Your task to perform on an android device: toggle pop-ups in chrome Image 0: 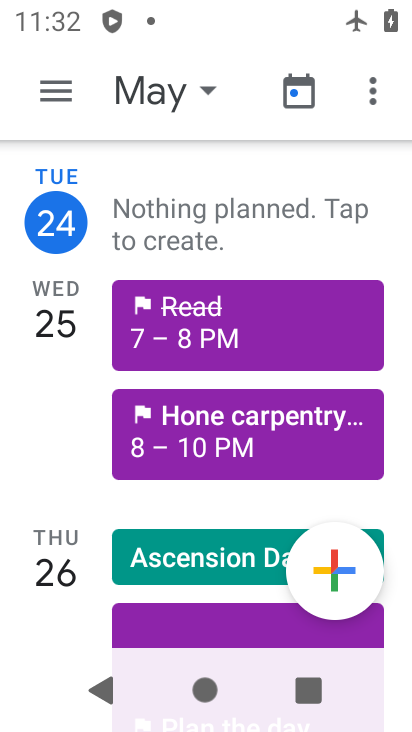
Step 0: press back button
Your task to perform on an android device: toggle pop-ups in chrome Image 1: 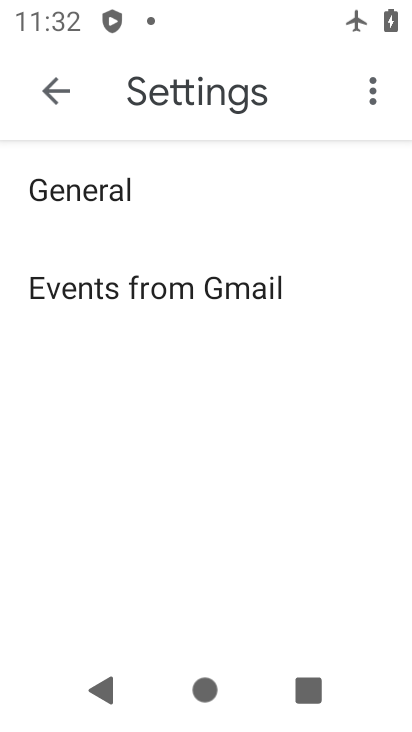
Step 1: press home button
Your task to perform on an android device: toggle pop-ups in chrome Image 2: 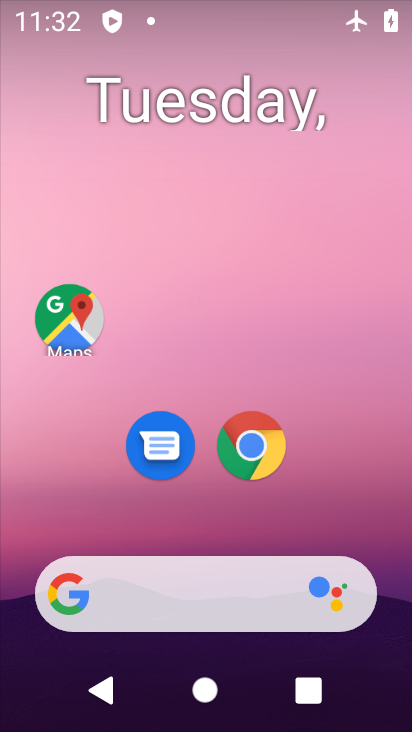
Step 2: drag from (350, 533) to (254, 12)
Your task to perform on an android device: toggle pop-ups in chrome Image 3: 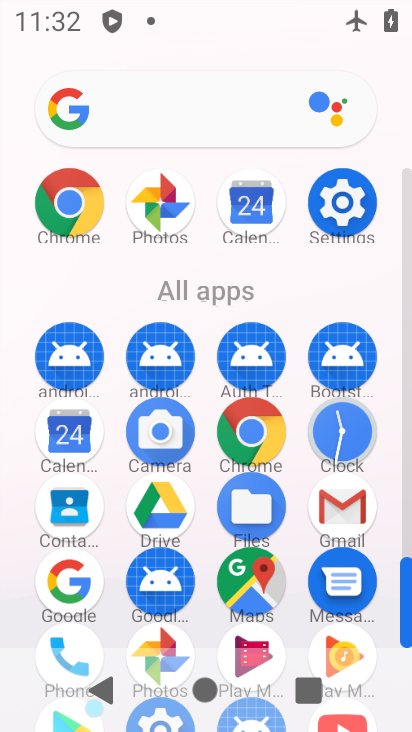
Step 3: drag from (5, 580) to (24, 222)
Your task to perform on an android device: toggle pop-ups in chrome Image 4: 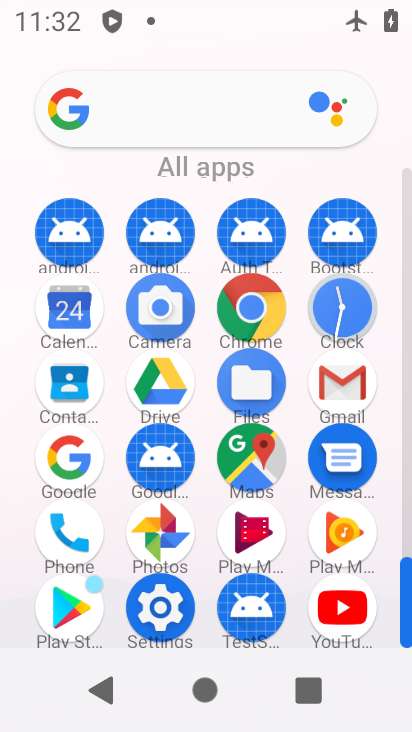
Step 4: click (244, 306)
Your task to perform on an android device: toggle pop-ups in chrome Image 5: 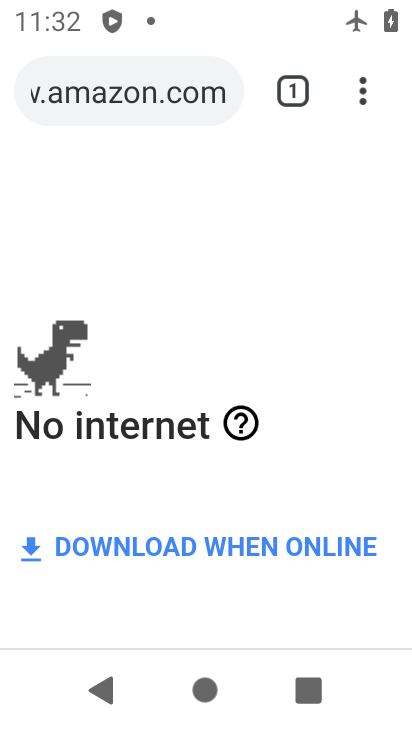
Step 5: drag from (357, 91) to (119, 459)
Your task to perform on an android device: toggle pop-ups in chrome Image 6: 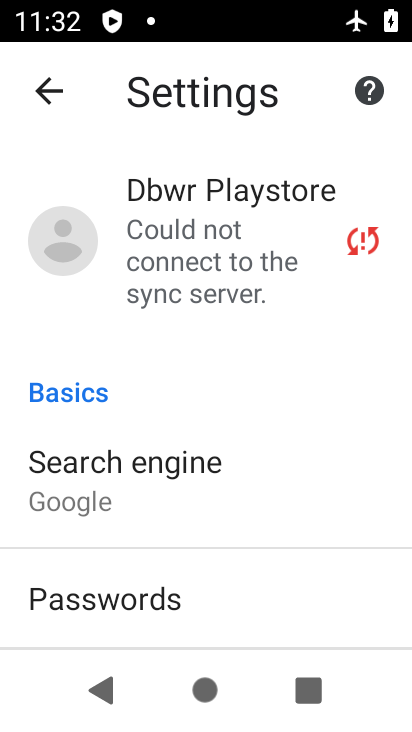
Step 6: drag from (307, 490) to (277, 177)
Your task to perform on an android device: toggle pop-ups in chrome Image 7: 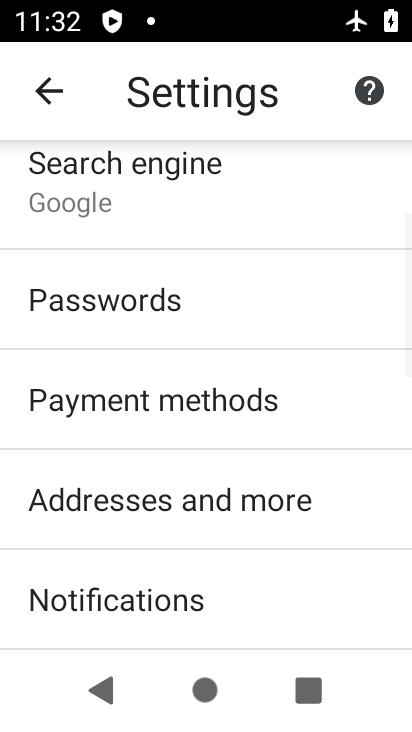
Step 7: drag from (223, 597) to (210, 151)
Your task to perform on an android device: toggle pop-ups in chrome Image 8: 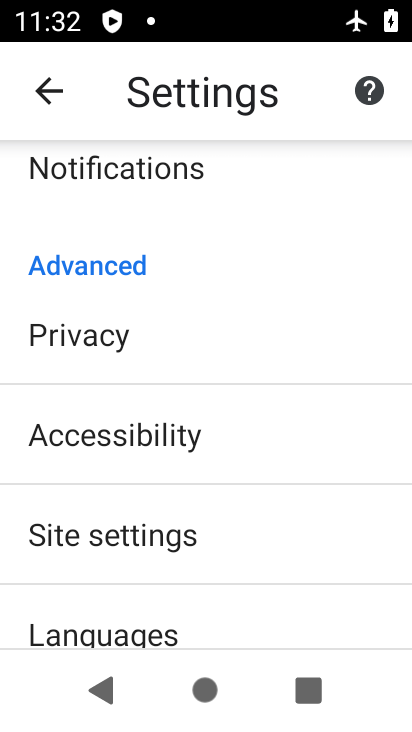
Step 8: drag from (188, 593) to (192, 155)
Your task to perform on an android device: toggle pop-ups in chrome Image 9: 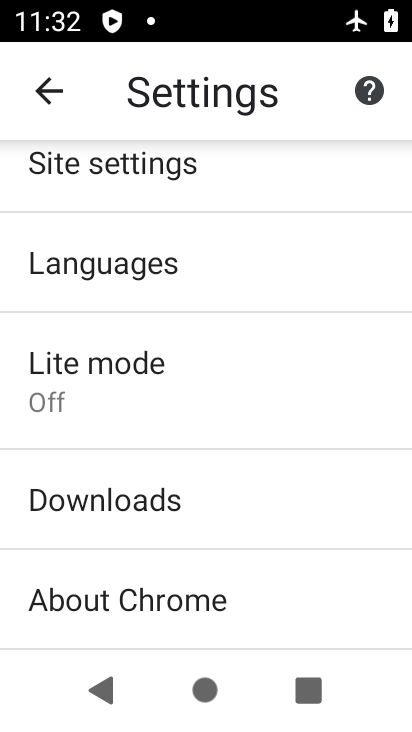
Step 9: drag from (241, 576) to (237, 188)
Your task to perform on an android device: toggle pop-ups in chrome Image 10: 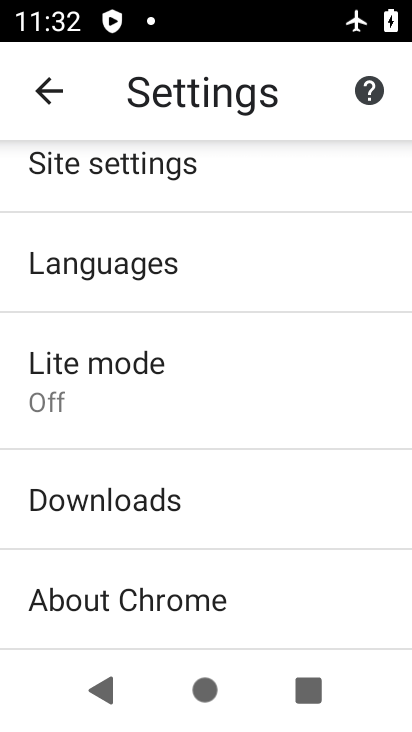
Step 10: click (161, 154)
Your task to perform on an android device: toggle pop-ups in chrome Image 11: 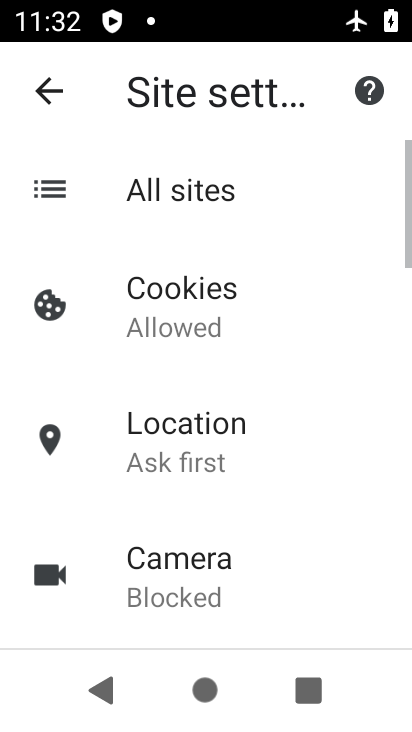
Step 11: drag from (271, 572) to (239, 160)
Your task to perform on an android device: toggle pop-ups in chrome Image 12: 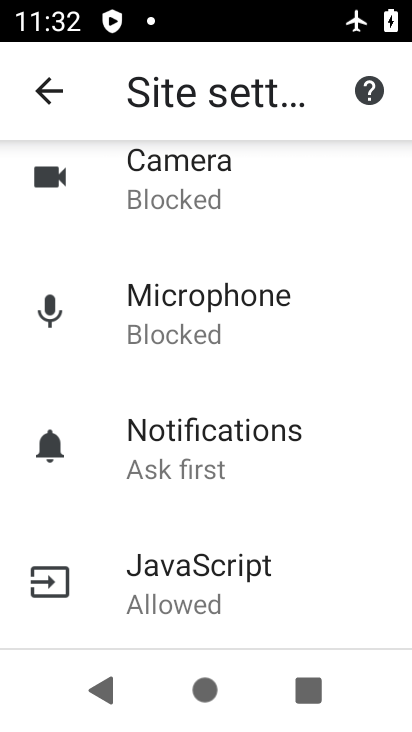
Step 12: drag from (306, 588) to (291, 296)
Your task to perform on an android device: toggle pop-ups in chrome Image 13: 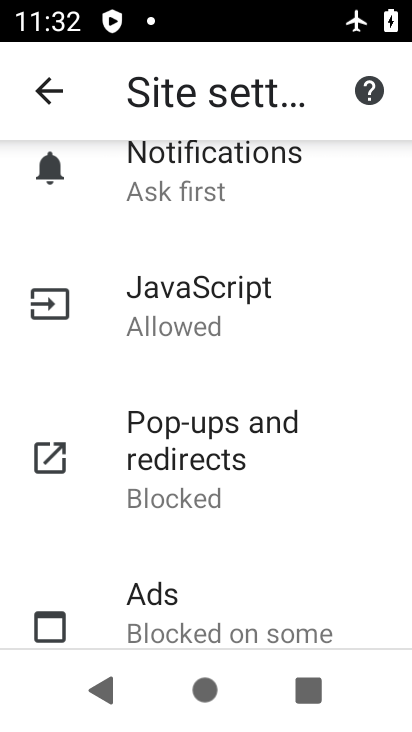
Step 13: click (224, 434)
Your task to perform on an android device: toggle pop-ups in chrome Image 14: 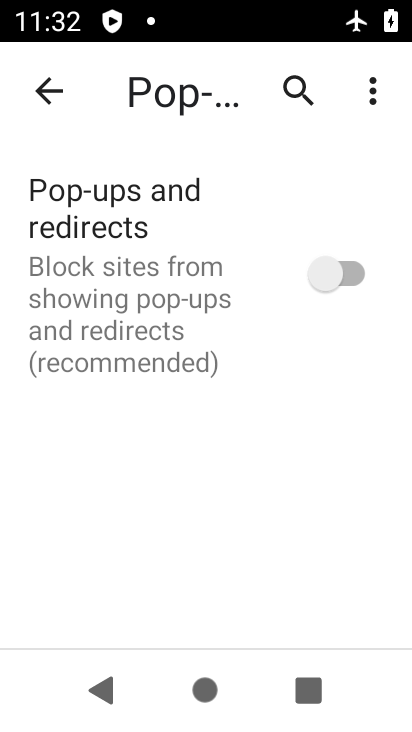
Step 14: click (350, 262)
Your task to perform on an android device: toggle pop-ups in chrome Image 15: 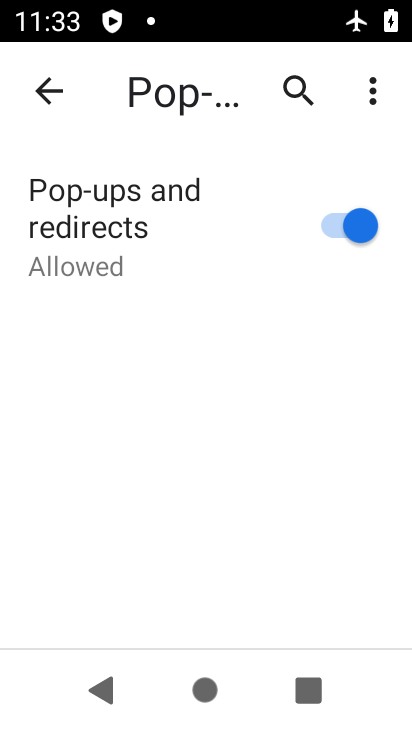
Step 15: task complete